Your task to perform on an android device: change notification settings in the gmail app Image 0: 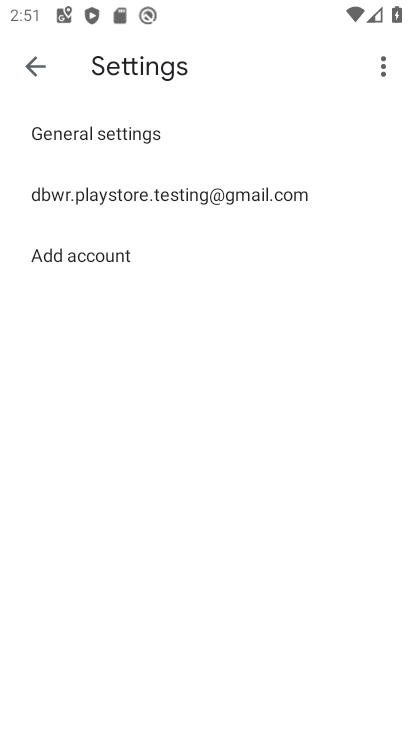
Step 0: press home button
Your task to perform on an android device: change notification settings in the gmail app Image 1: 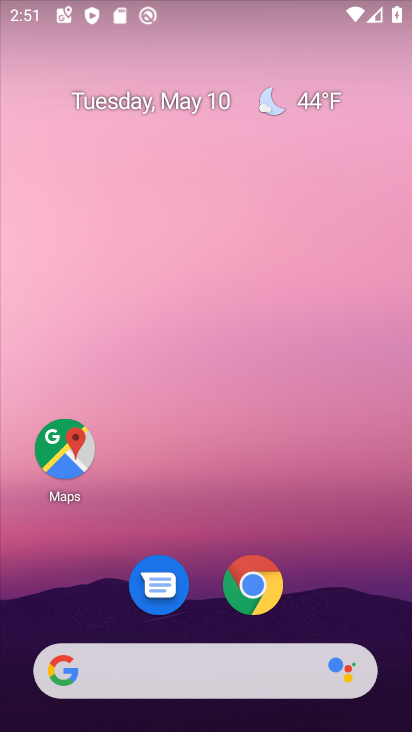
Step 1: drag from (249, 451) to (261, 42)
Your task to perform on an android device: change notification settings in the gmail app Image 2: 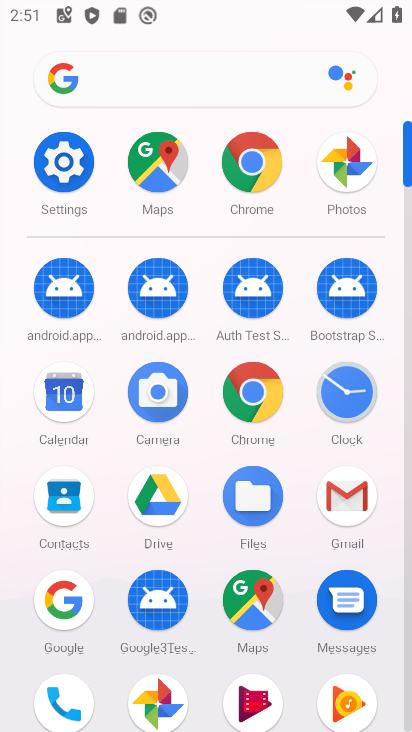
Step 2: click (342, 495)
Your task to perform on an android device: change notification settings in the gmail app Image 3: 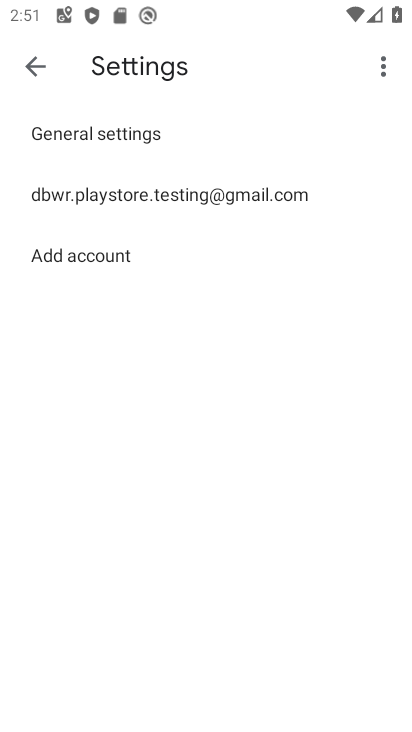
Step 3: click (127, 133)
Your task to perform on an android device: change notification settings in the gmail app Image 4: 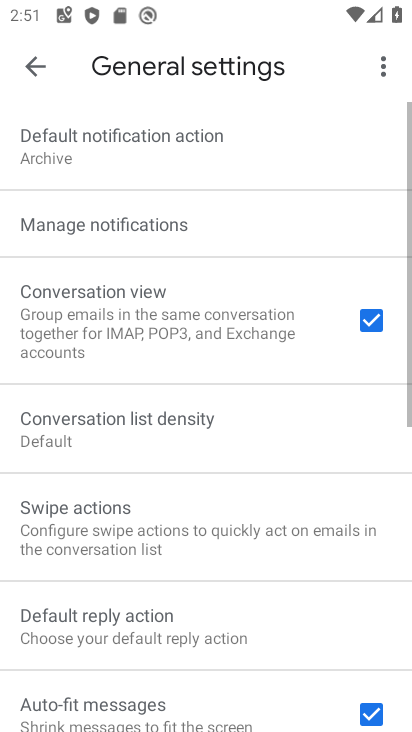
Step 4: click (177, 215)
Your task to perform on an android device: change notification settings in the gmail app Image 5: 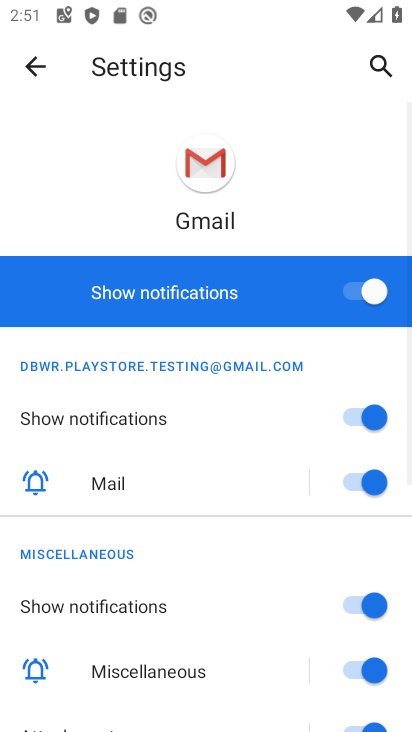
Step 5: click (354, 293)
Your task to perform on an android device: change notification settings in the gmail app Image 6: 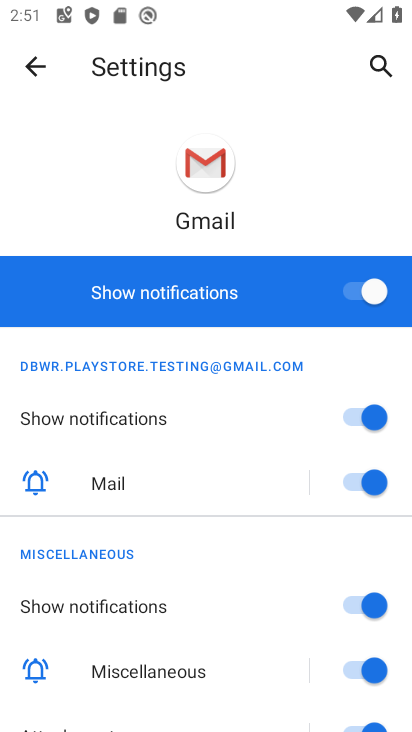
Step 6: click (359, 285)
Your task to perform on an android device: change notification settings in the gmail app Image 7: 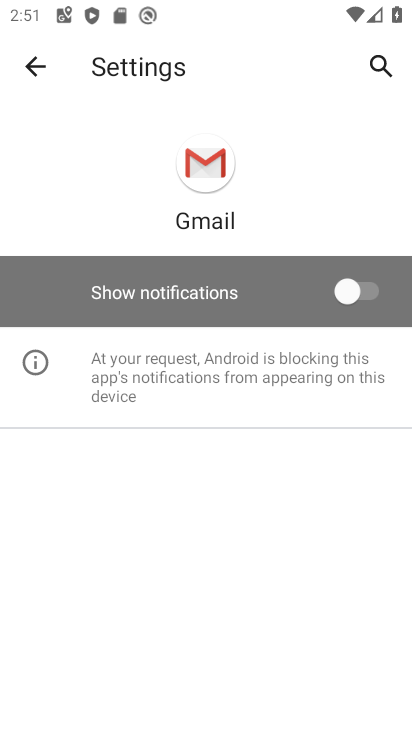
Step 7: task complete